Your task to perform on an android device: turn on wifi Image 0: 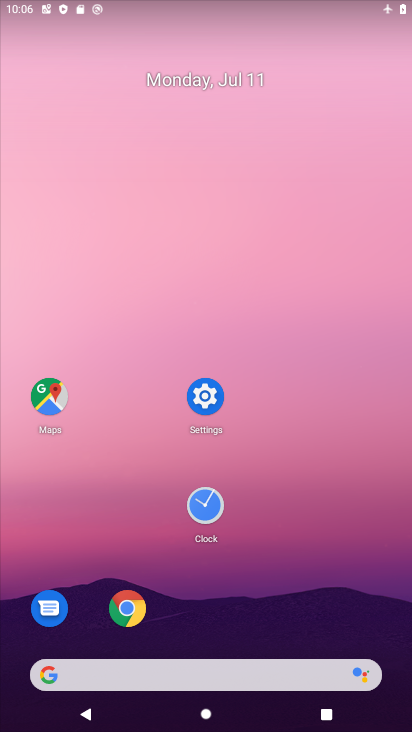
Step 0: click (198, 397)
Your task to perform on an android device: turn on wifi Image 1: 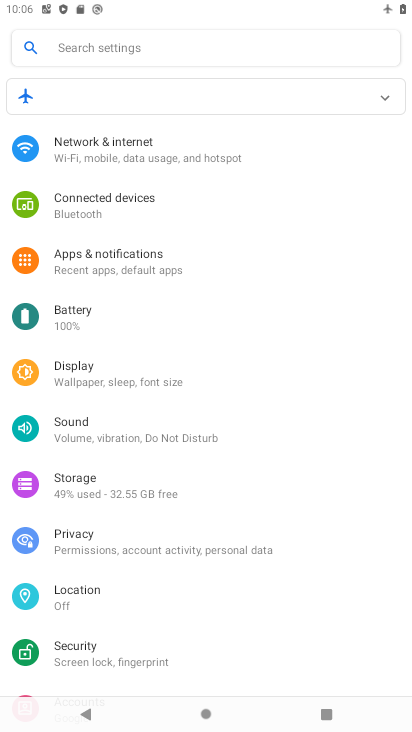
Step 1: click (104, 162)
Your task to perform on an android device: turn on wifi Image 2: 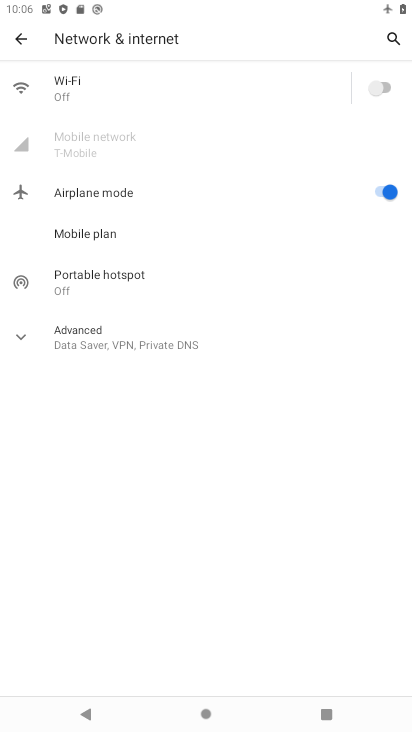
Step 2: click (383, 88)
Your task to perform on an android device: turn on wifi Image 3: 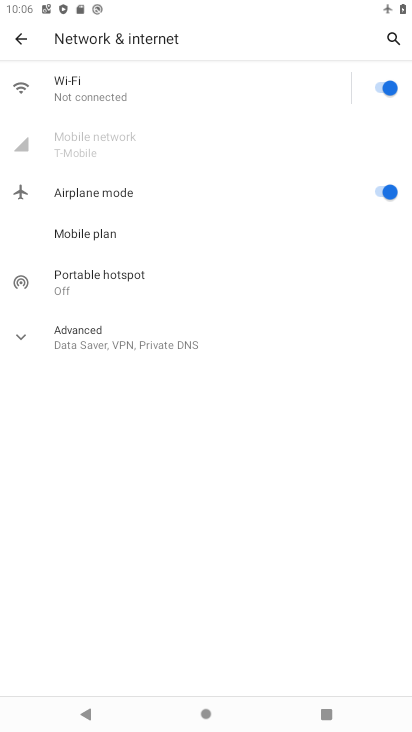
Step 3: click (381, 187)
Your task to perform on an android device: turn on wifi Image 4: 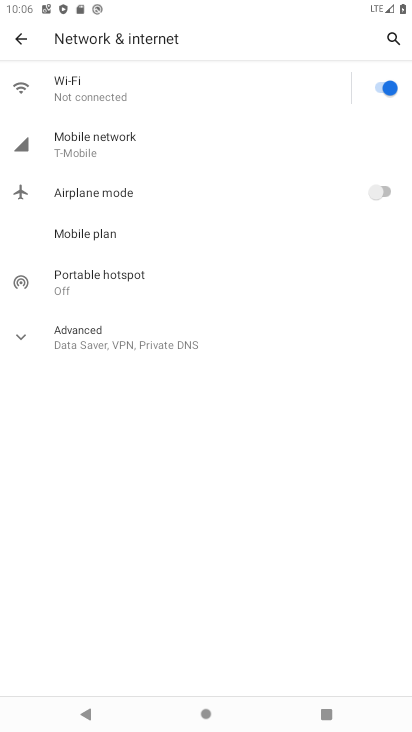
Step 4: task complete